Your task to perform on an android device: clear history in the chrome app Image 0: 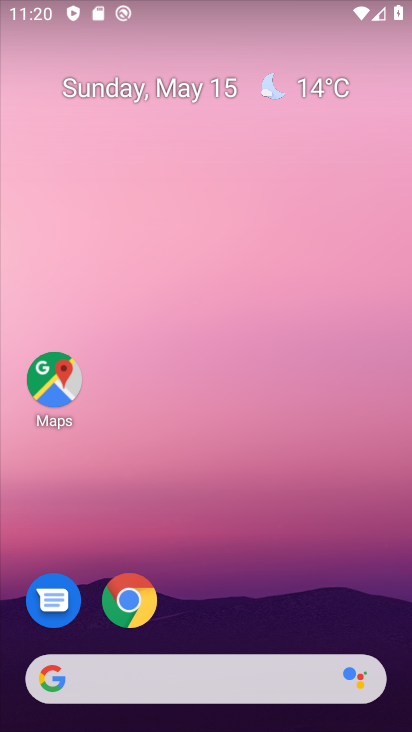
Step 0: click (126, 604)
Your task to perform on an android device: clear history in the chrome app Image 1: 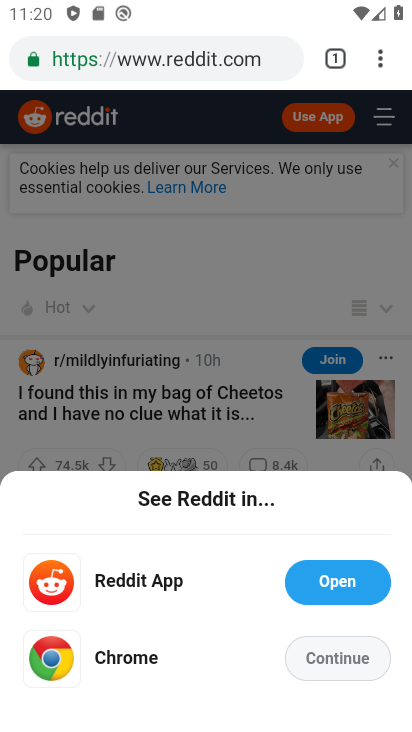
Step 1: click (382, 62)
Your task to perform on an android device: clear history in the chrome app Image 2: 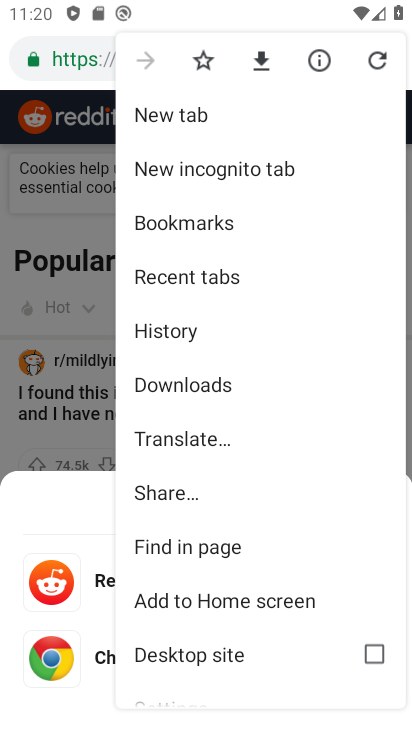
Step 2: click (165, 332)
Your task to perform on an android device: clear history in the chrome app Image 3: 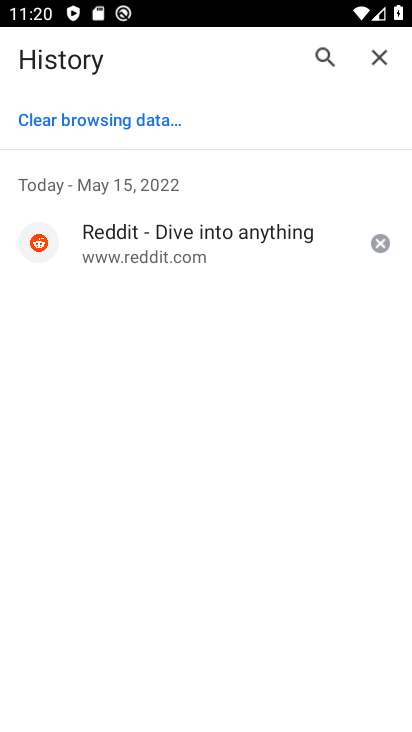
Step 3: click (85, 119)
Your task to perform on an android device: clear history in the chrome app Image 4: 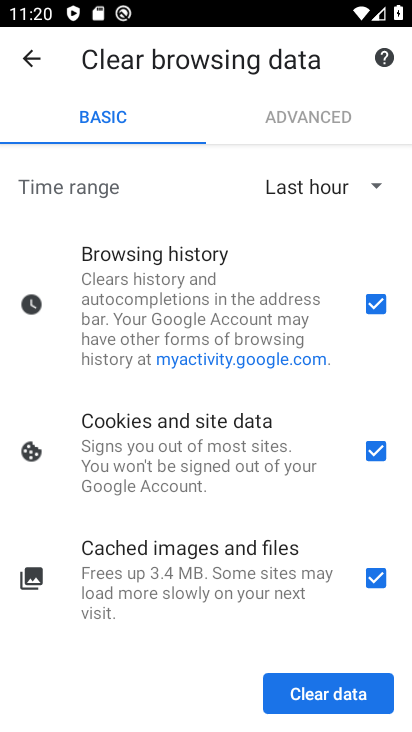
Step 4: click (382, 576)
Your task to perform on an android device: clear history in the chrome app Image 5: 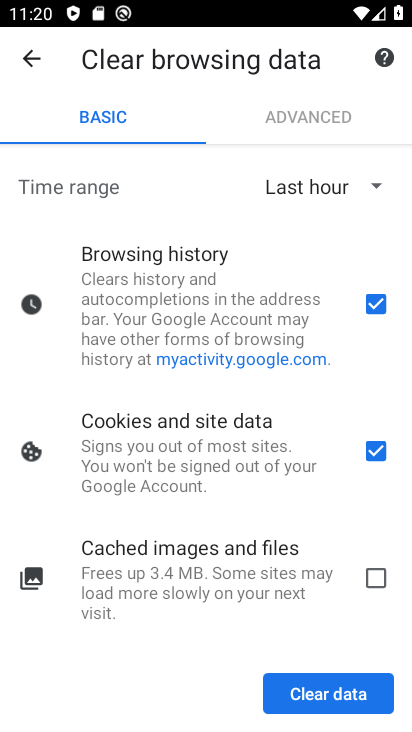
Step 5: click (377, 446)
Your task to perform on an android device: clear history in the chrome app Image 6: 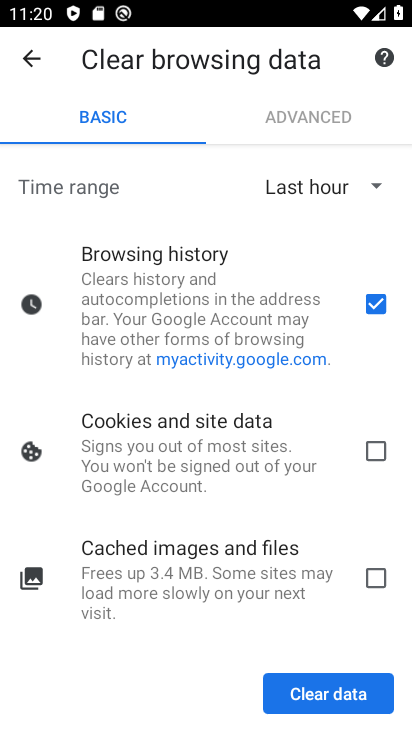
Step 6: click (322, 690)
Your task to perform on an android device: clear history in the chrome app Image 7: 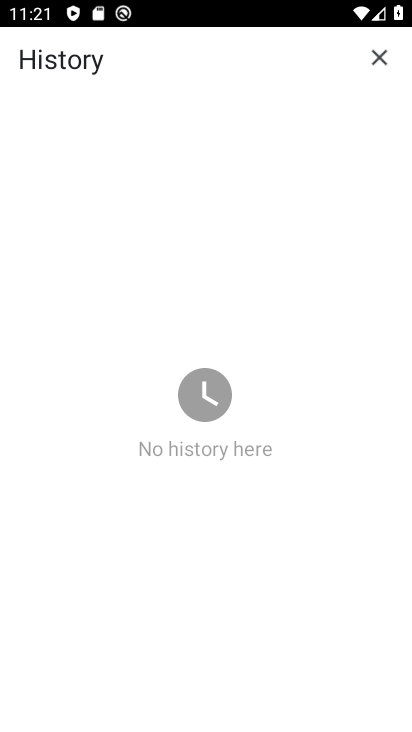
Step 7: task complete